Your task to perform on an android device: open wifi settings Image 0: 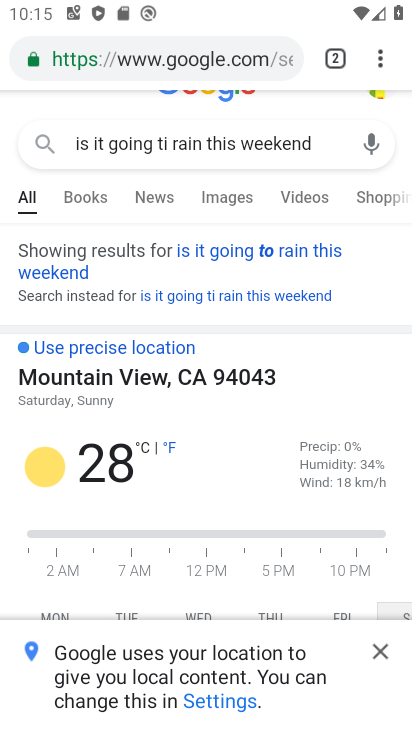
Step 0: press home button
Your task to perform on an android device: open wifi settings Image 1: 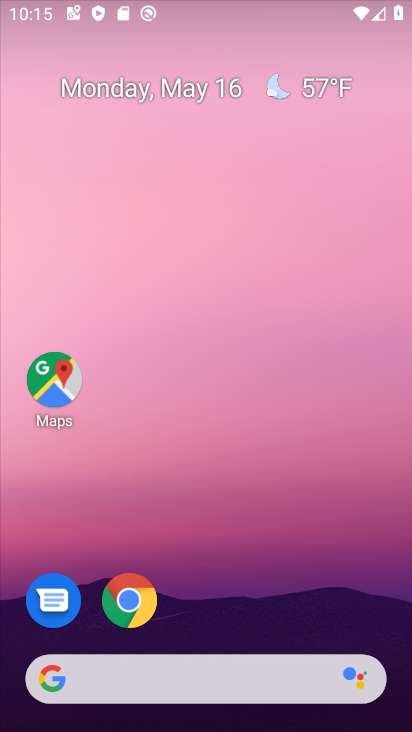
Step 1: drag from (367, 606) to (330, 165)
Your task to perform on an android device: open wifi settings Image 2: 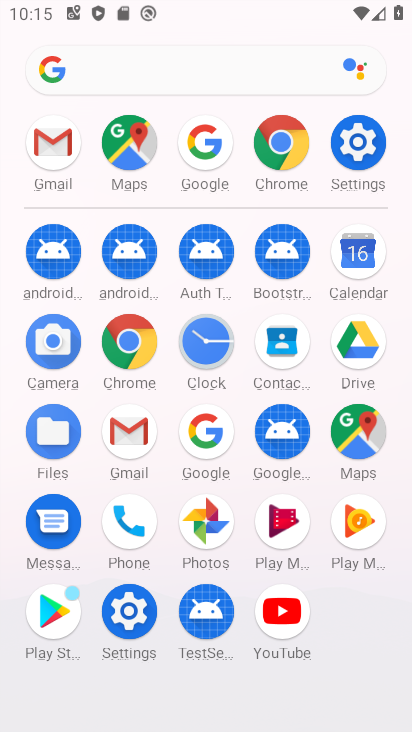
Step 2: click (379, 150)
Your task to perform on an android device: open wifi settings Image 3: 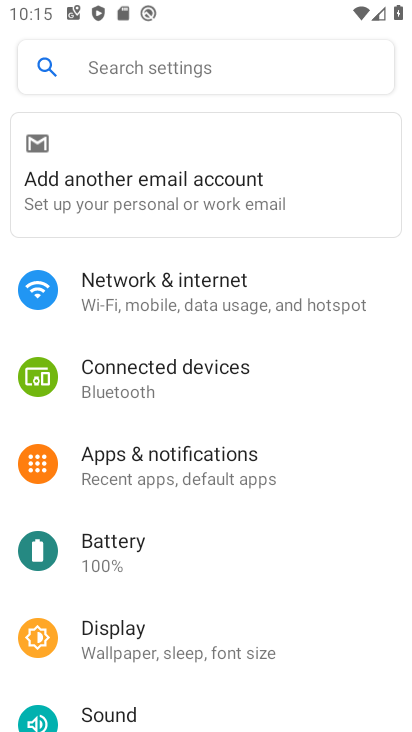
Step 3: click (114, 302)
Your task to perform on an android device: open wifi settings Image 4: 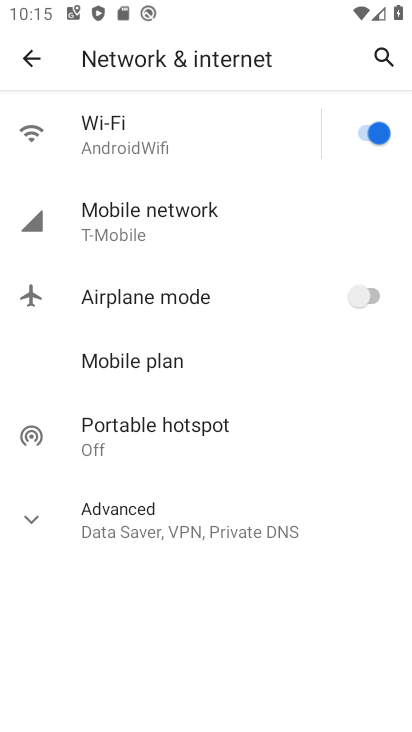
Step 4: task complete